Your task to perform on an android device: toggle priority inbox in the gmail app Image 0: 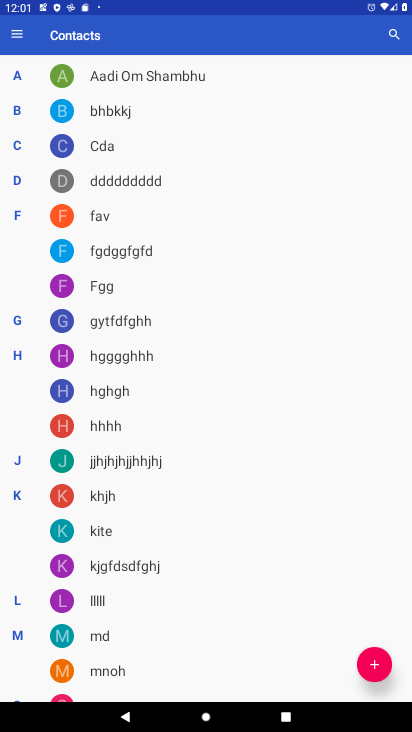
Step 0: press home button
Your task to perform on an android device: toggle priority inbox in the gmail app Image 1: 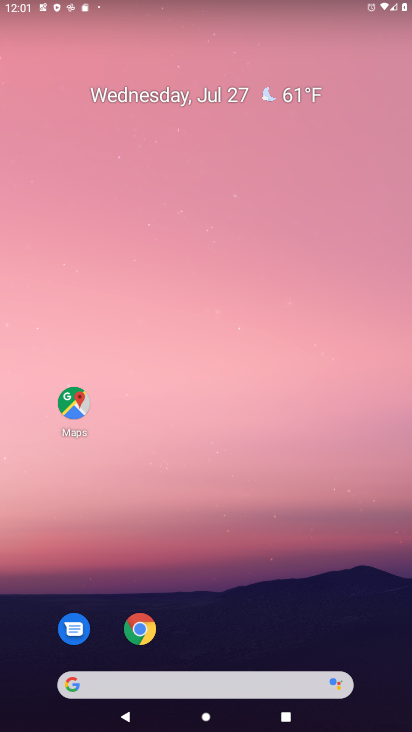
Step 1: drag from (249, 649) to (231, 159)
Your task to perform on an android device: toggle priority inbox in the gmail app Image 2: 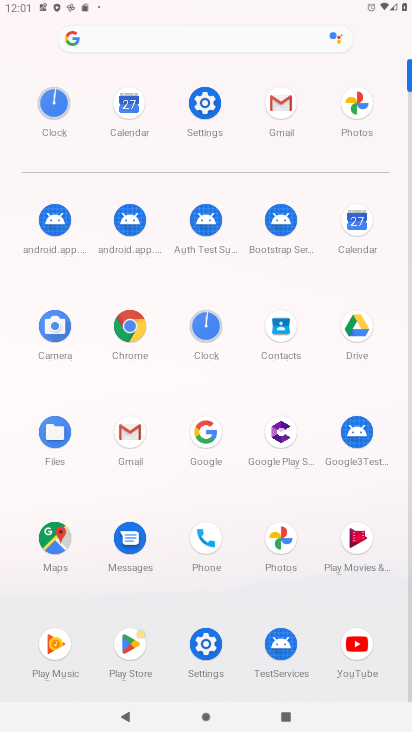
Step 2: click (266, 110)
Your task to perform on an android device: toggle priority inbox in the gmail app Image 3: 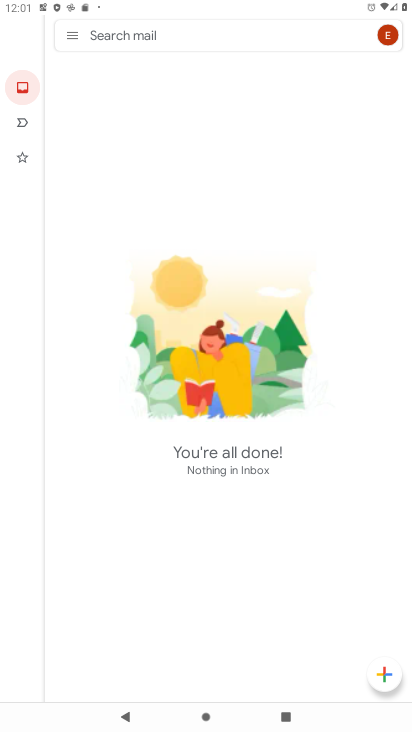
Step 3: task complete